Your task to perform on an android device: add a contact Image 0: 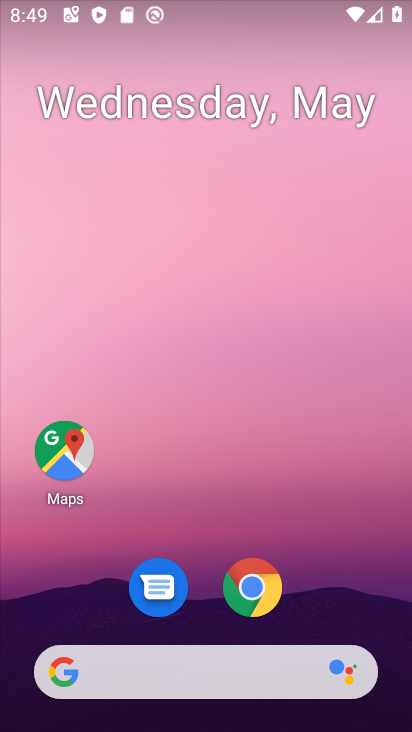
Step 0: drag from (199, 725) to (165, 31)
Your task to perform on an android device: add a contact Image 1: 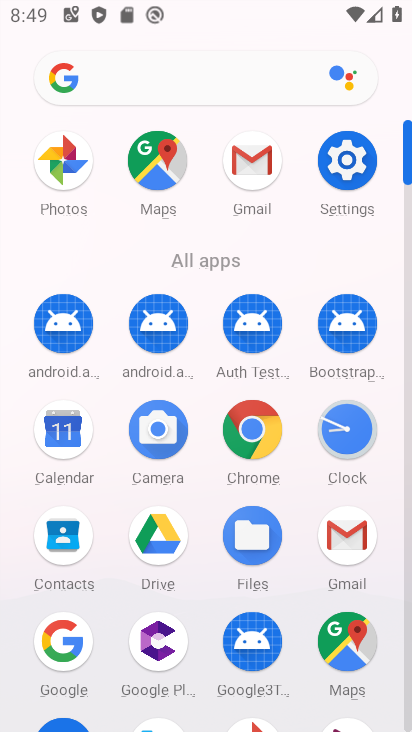
Step 1: click (62, 537)
Your task to perform on an android device: add a contact Image 2: 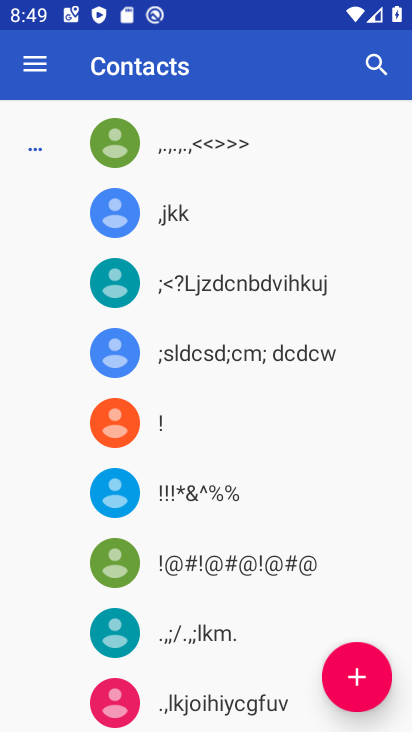
Step 2: click (355, 675)
Your task to perform on an android device: add a contact Image 3: 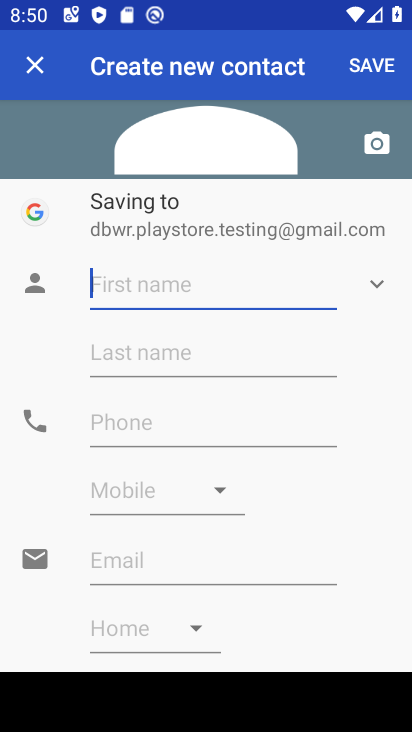
Step 3: click (192, 289)
Your task to perform on an android device: add a contact Image 4: 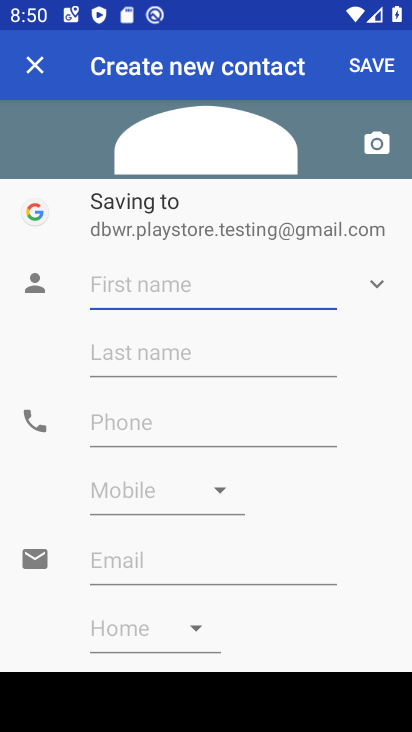
Step 4: type "chong soo"
Your task to perform on an android device: add a contact Image 5: 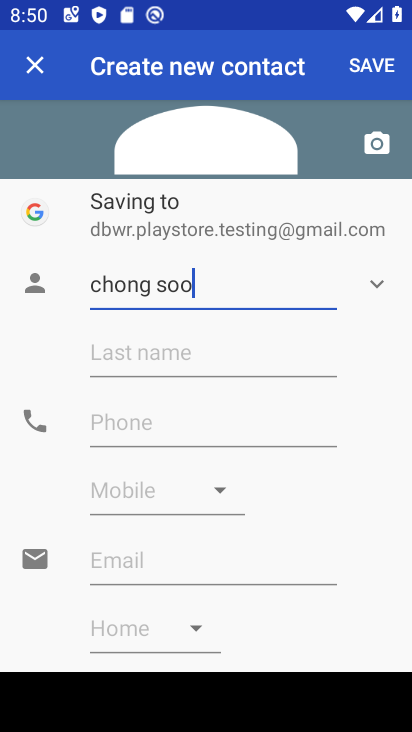
Step 5: click (160, 428)
Your task to perform on an android device: add a contact Image 6: 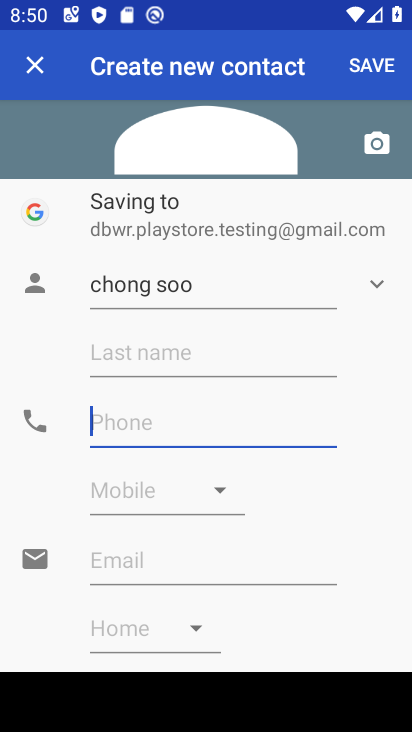
Step 6: type "899099"
Your task to perform on an android device: add a contact Image 7: 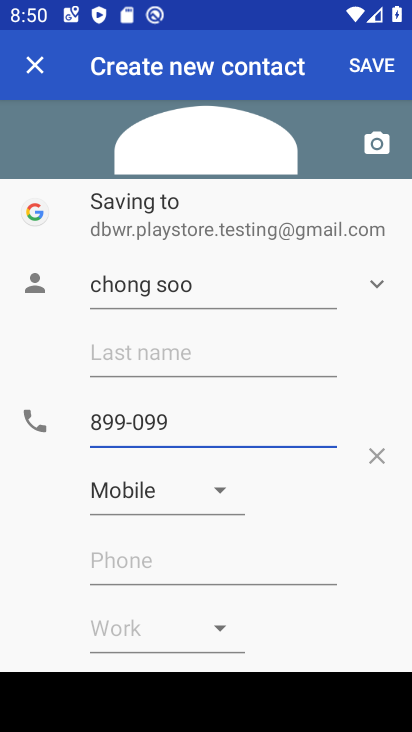
Step 7: click (370, 65)
Your task to perform on an android device: add a contact Image 8: 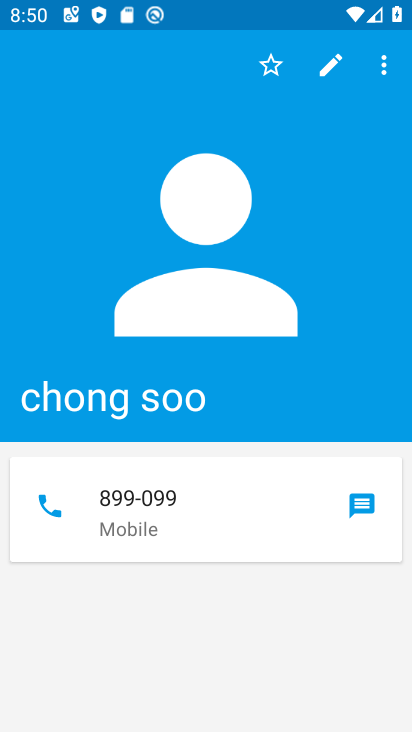
Step 8: task complete